Your task to perform on an android device: Search for Italian restaurants on Maps Image 0: 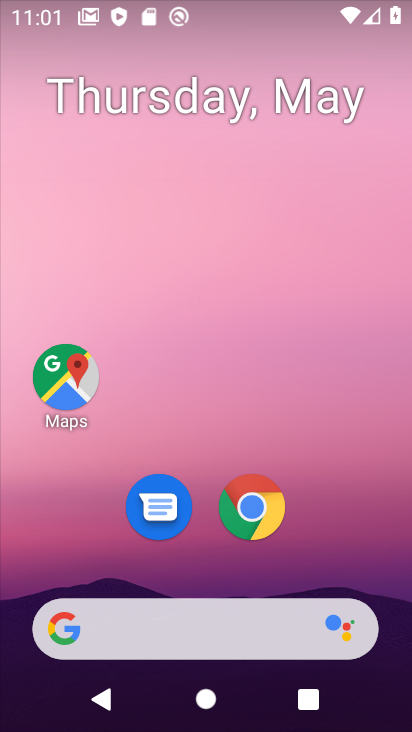
Step 0: click (65, 368)
Your task to perform on an android device: Search for Italian restaurants on Maps Image 1: 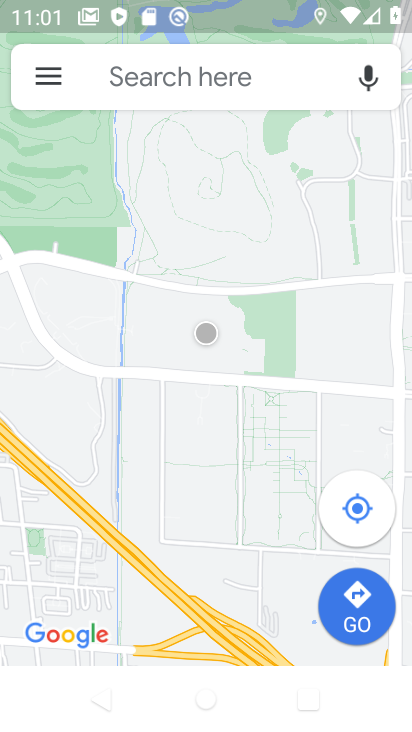
Step 1: click (47, 70)
Your task to perform on an android device: Search for Italian restaurants on Maps Image 2: 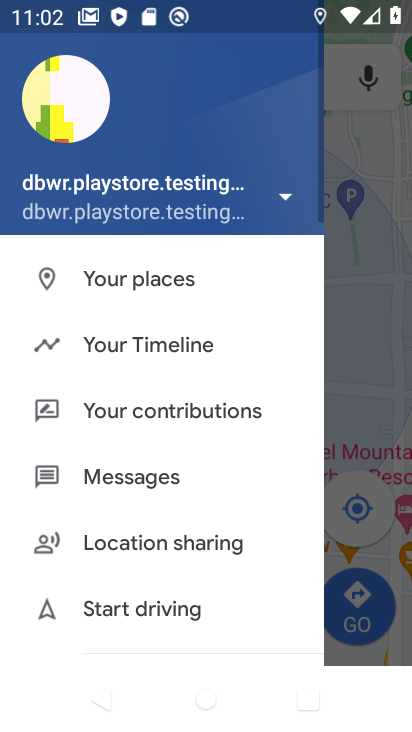
Step 2: click (356, 94)
Your task to perform on an android device: Search for Italian restaurants on Maps Image 3: 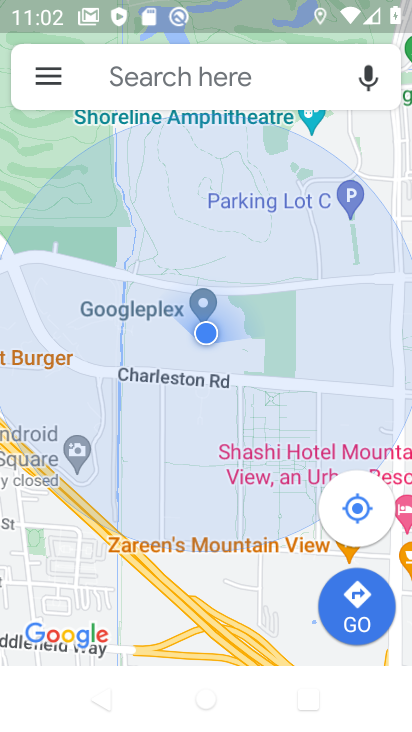
Step 3: click (200, 86)
Your task to perform on an android device: Search for Italian restaurants on Maps Image 4: 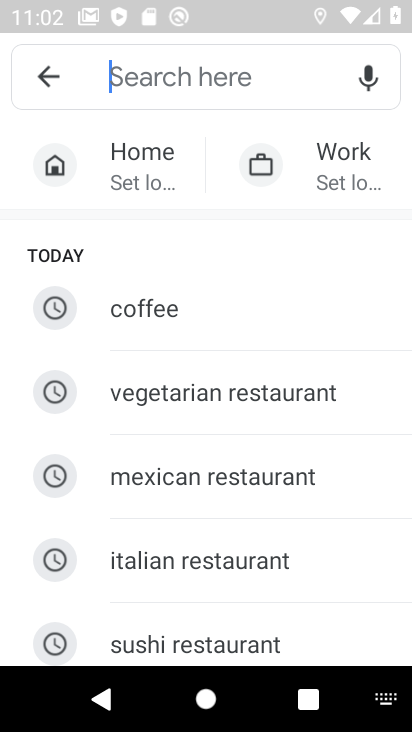
Step 4: click (315, 549)
Your task to perform on an android device: Search for Italian restaurants on Maps Image 5: 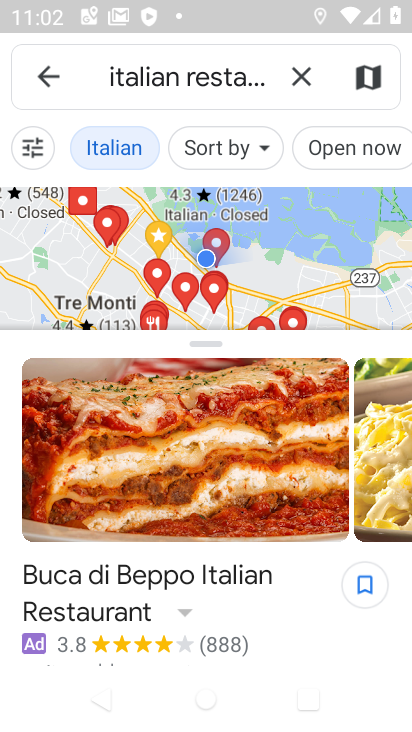
Step 5: task complete